Your task to perform on an android device: turn off location history Image 0: 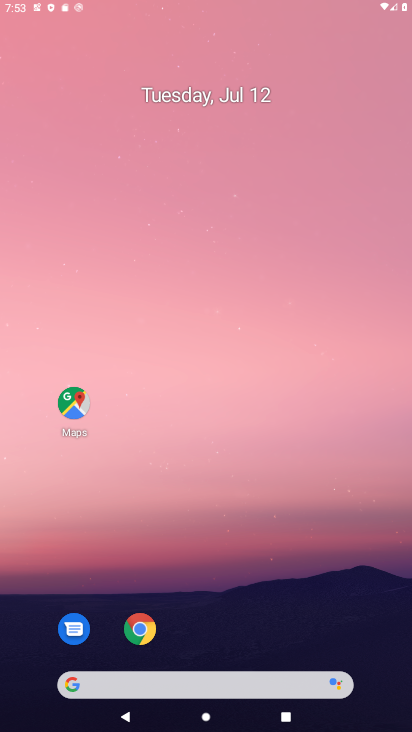
Step 0: press back button
Your task to perform on an android device: turn off location history Image 1: 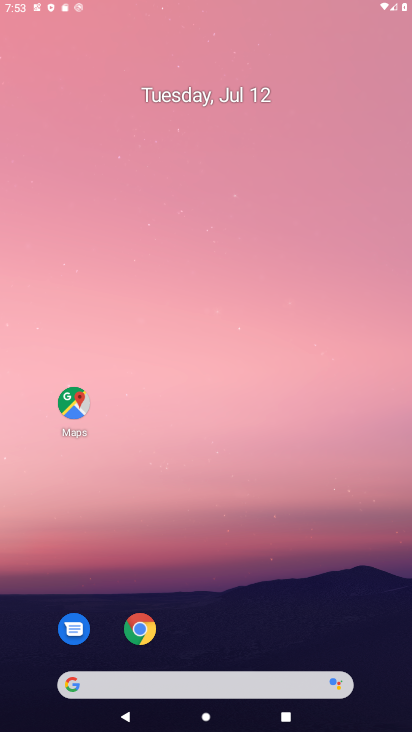
Step 1: click (202, 170)
Your task to perform on an android device: turn off location history Image 2: 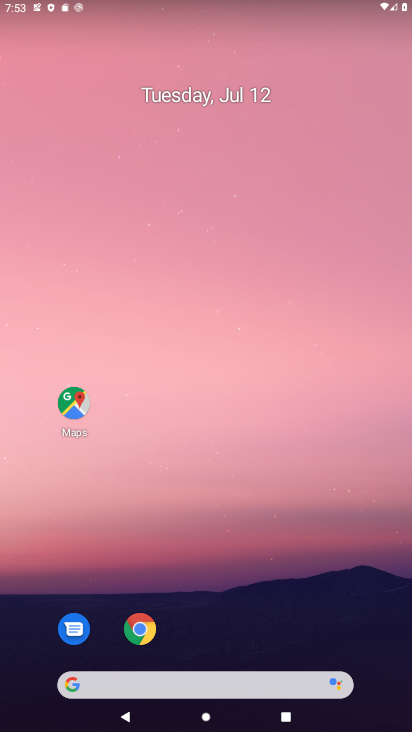
Step 2: drag from (247, 680) to (215, 259)
Your task to perform on an android device: turn off location history Image 3: 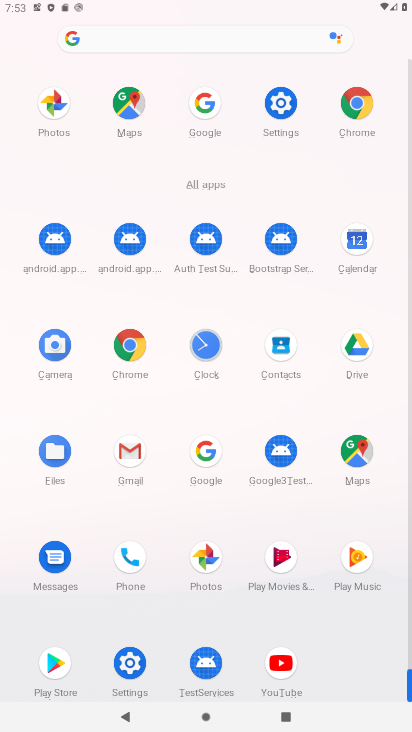
Step 3: click (281, 97)
Your task to perform on an android device: turn off location history Image 4: 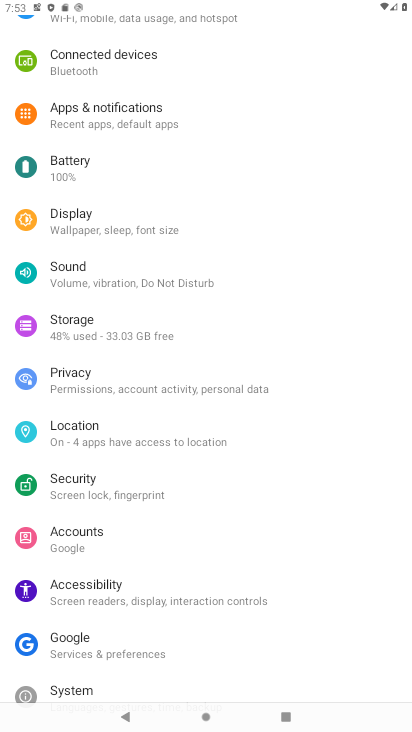
Step 4: click (76, 428)
Your task to perform on an android device: turn off location history Image 5: 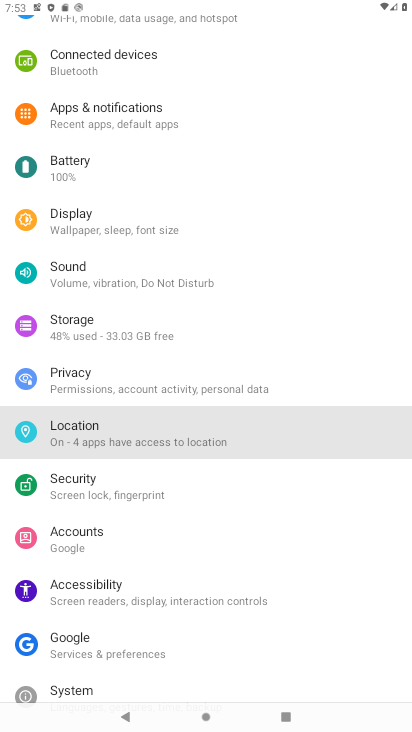
Step 5: click (76, 428)
Your task to perform on an android device: turn off location history Image 6: 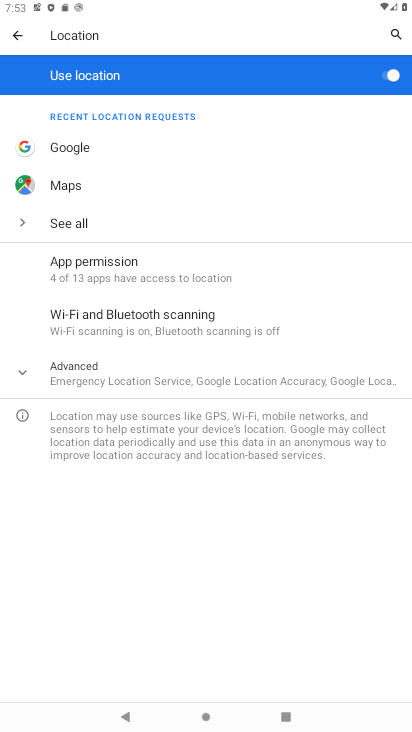
Step 6: click (77, 380)
Your task to perform on an android device: turn off location history Image 7: 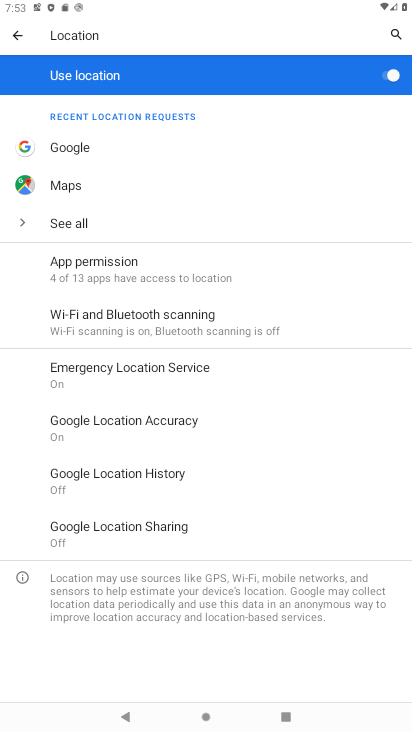
Step 7: click (132, 473)
Your task to perform on an android device: turn off location history Image 8: 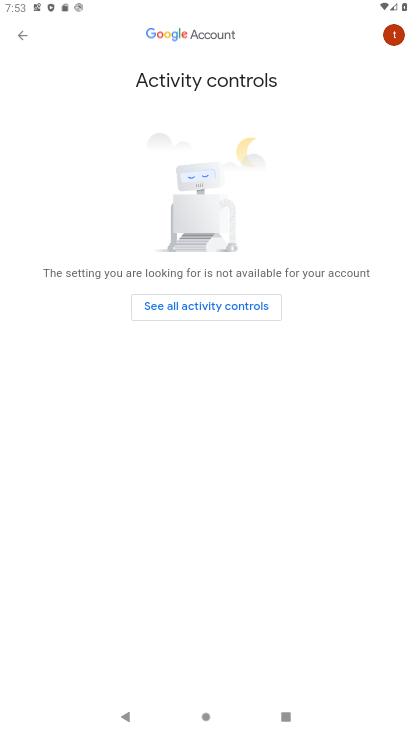
Step 8: click (217, 307)
Your task to perform on an android device: turn off location history Image 9: 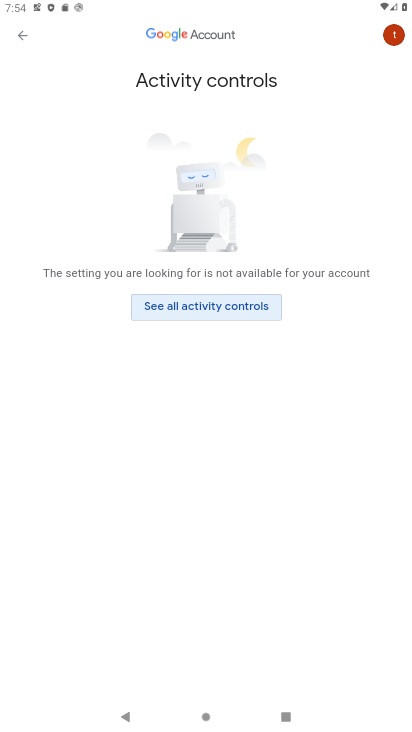
Step 9: click (20, 31)
Your task to perform on an android device: turn off location history Image 10: 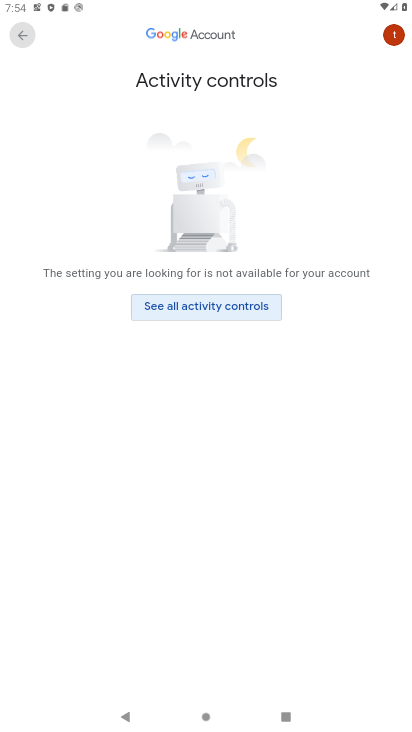
Step 10: click (22, 31)
Your task to perform on an android device: turn off location history Image 11: 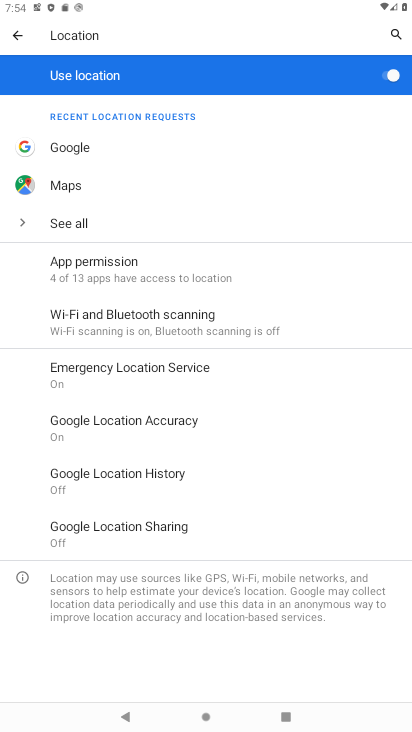
Step 11: click (110, 464)
Your task to perform on an android device: turn off location history Image 12: 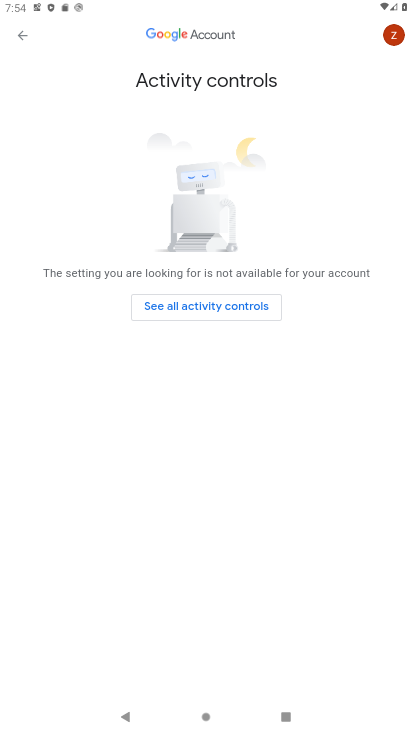
Step 12: task complete